Your task to perform on an android device: Go to accessibility settings Image 0: 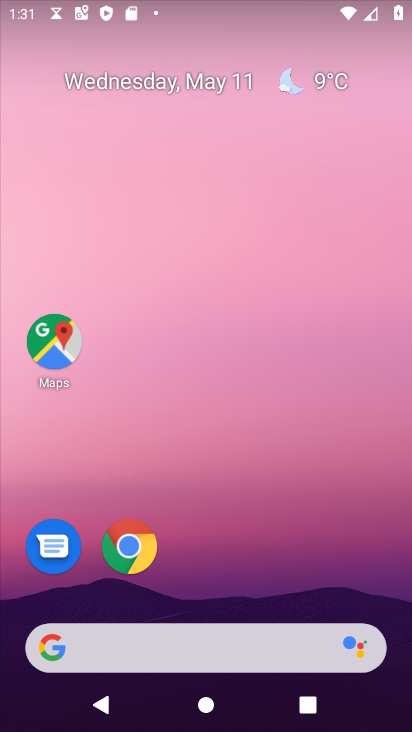
Step 0: drag from (203, 580) to (212, 43)
Your task to perform on an android device: Go to accessibility settings Image 1: 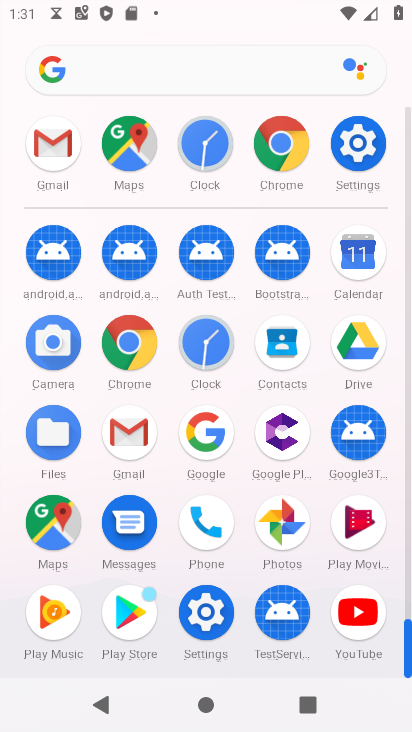
Step 1: click (356, 163)
Your task to perform on an android device: Go to accessibility settings Image 2: 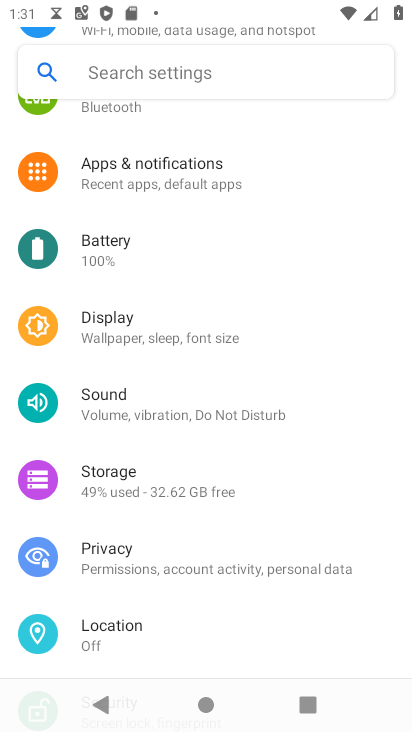
Step 2: drag from (232, 608) to (237, 122)
Your task to perform on an android device: Go to accessibility settings Image 3: 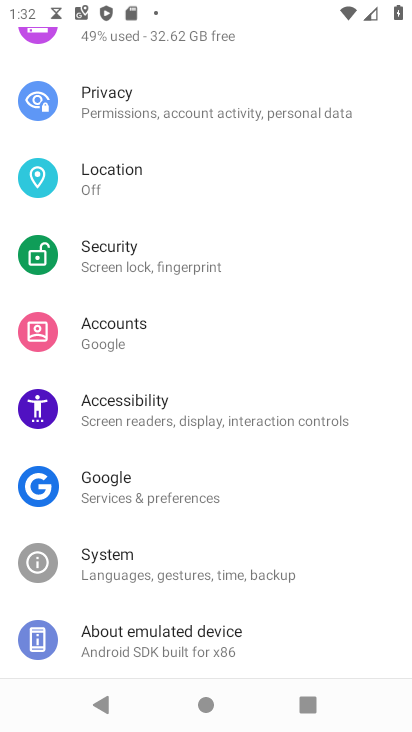
Step 3: click (144, 405)
Your task to perform on an android device: Go to accessibility settings Image 4: 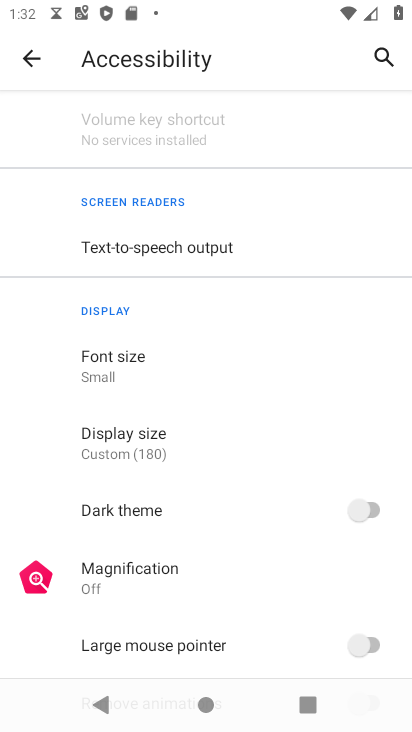
Step 4: task complete